Your task to perform on an android device: Open the calendar app, open the side menu, and click the "Day" option Image 0: 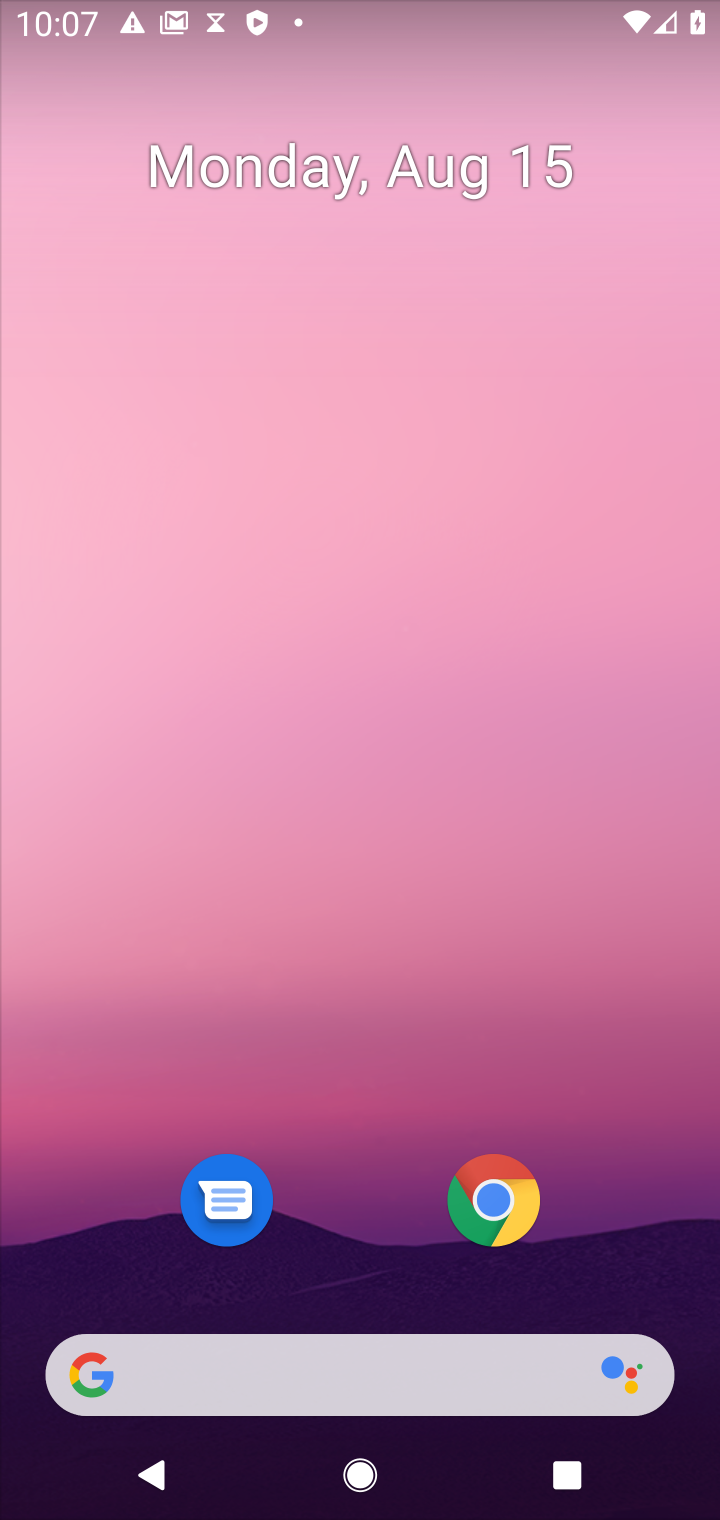
Step 0: drag from (370, 1177) to (335, 418)
Your task to perform on an android device: Open the calendar app, open the side menu, and click the "Day" option Image 1: 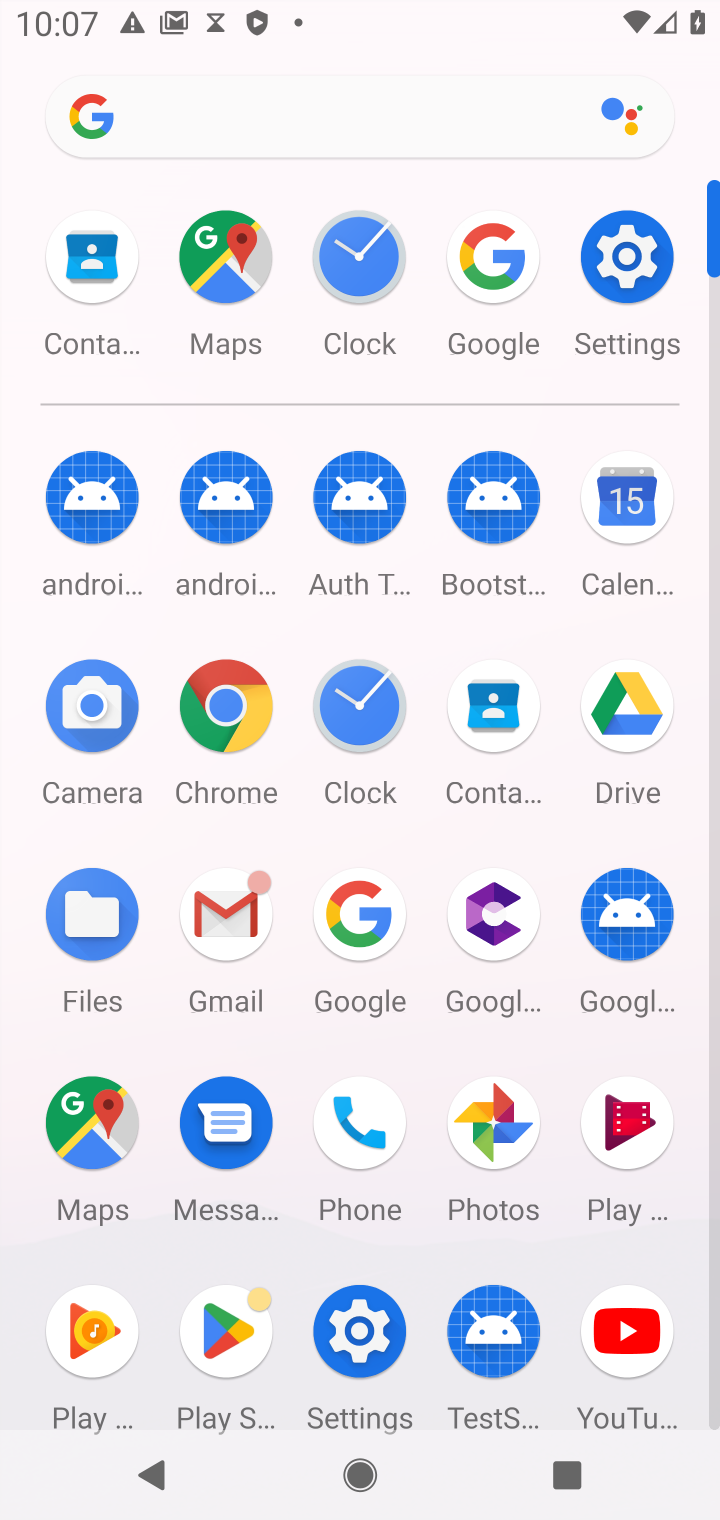
Step 1: click (602, 535)
Your task to perform on an android device: Open the calendar app, open the side menu, and click the "Day" option Image 2: 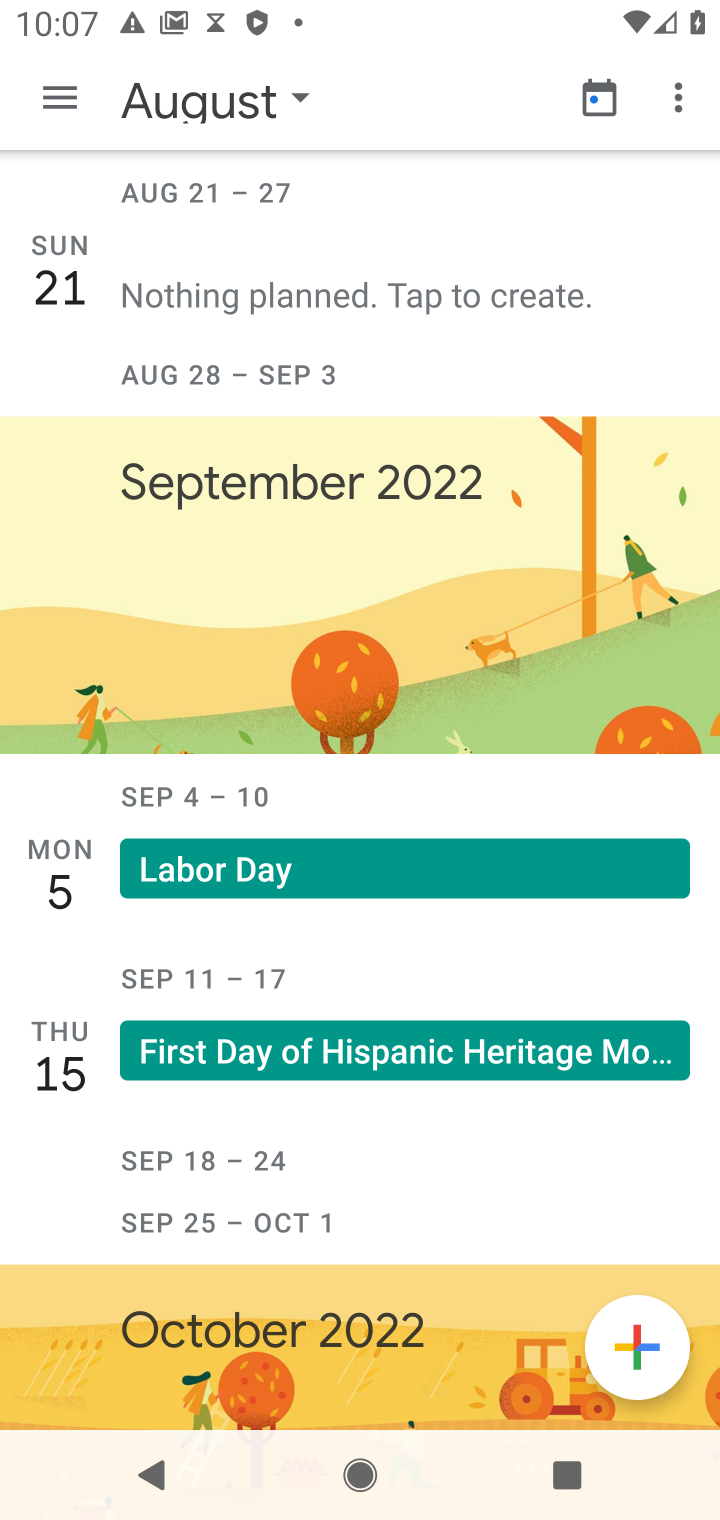
Step 2: click (43, 105)
Your task to perform on an android device: Open the calendar app, open the side menu, and click the "Day" option Image 3: 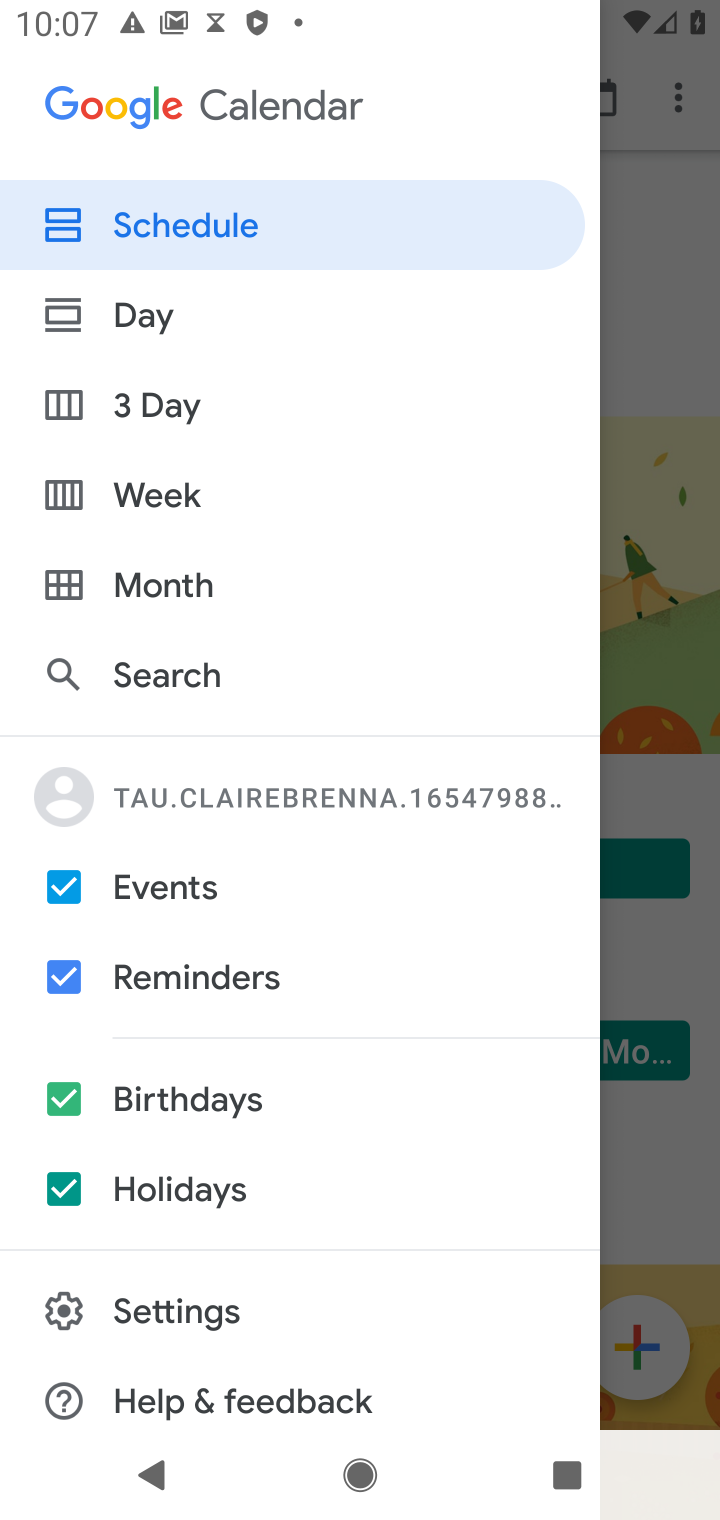
Step 3: click (173, 311)
Your task to perform on an android device: Open the calendar app, open the side menu, and click the "Day" option Image 4: 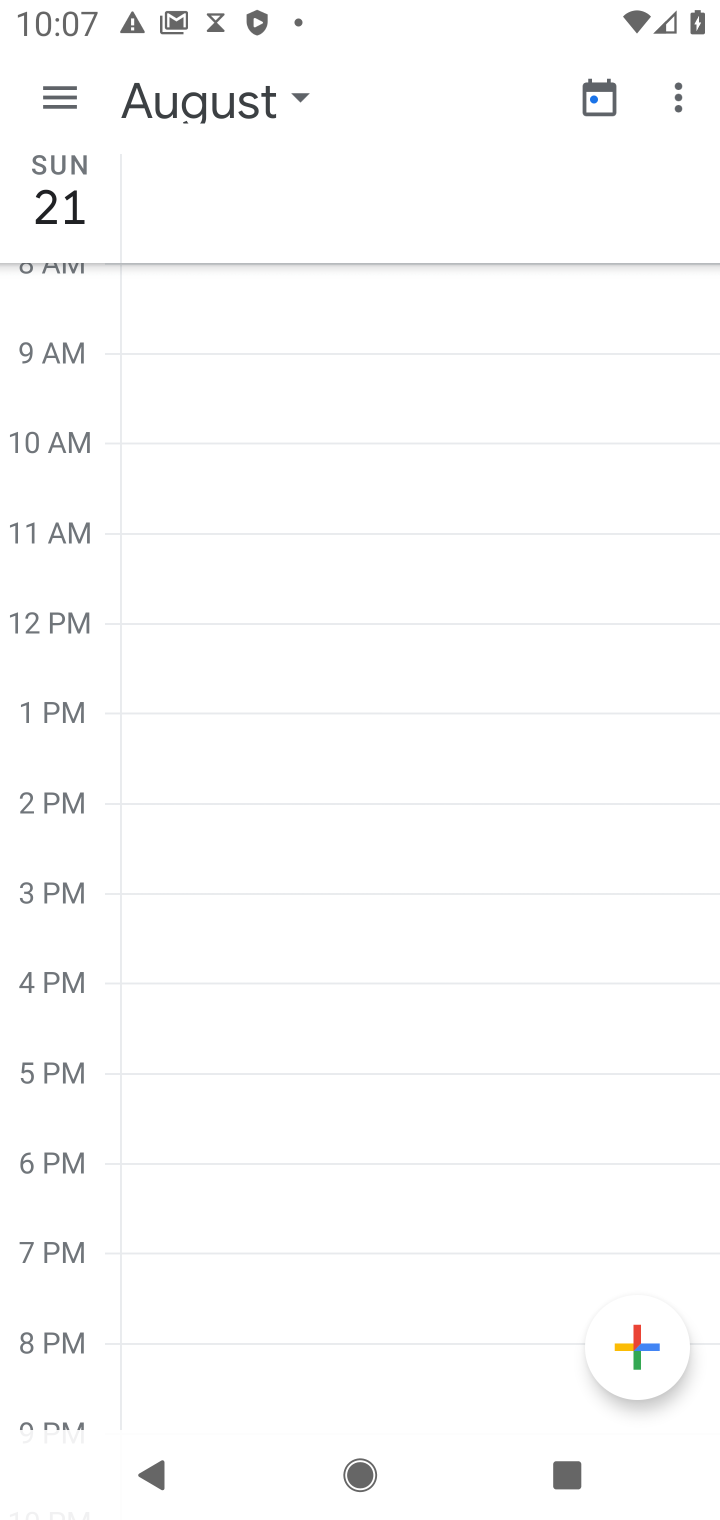
Step 4: task complete